Your task to perform on an android device: change the clock display to analog Image 0: 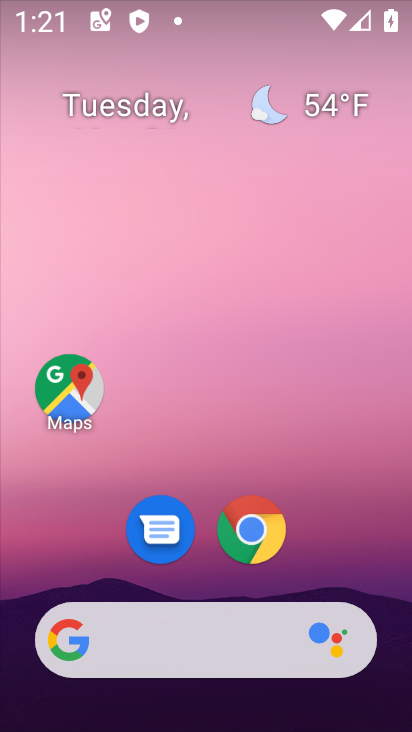
Step 0: drag from (329, 545) to (273, 153)
Your task to perform on an android device: change the clock display to analog Image 1: 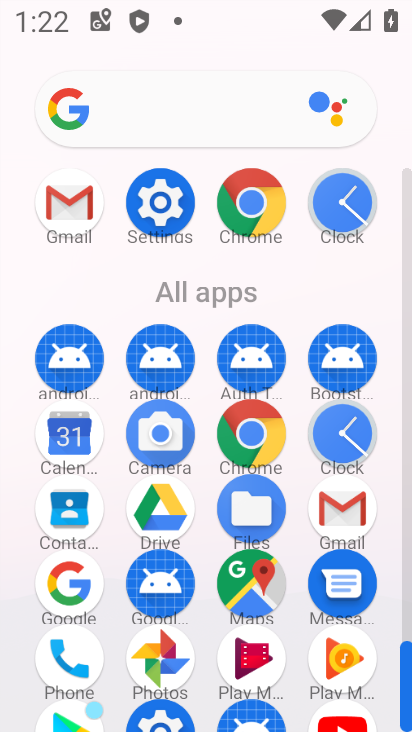
Step 1: click (341, 203)
Your task to perform on an android device: change the clock display to analog Image 2: 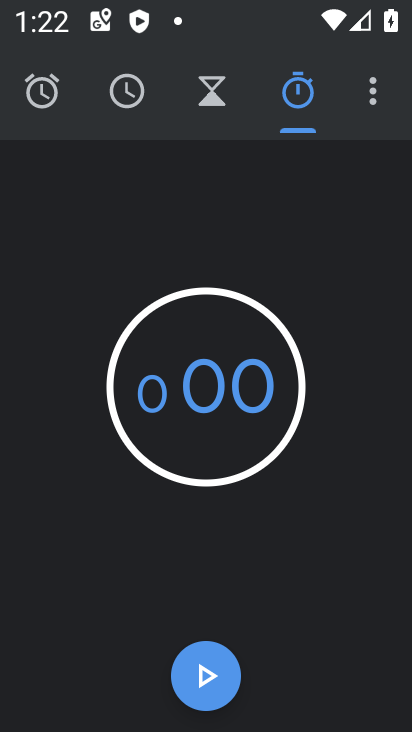
Step 2: click (374, 91)
Your task to perform on an android device: change the clock display to analog Image 3: 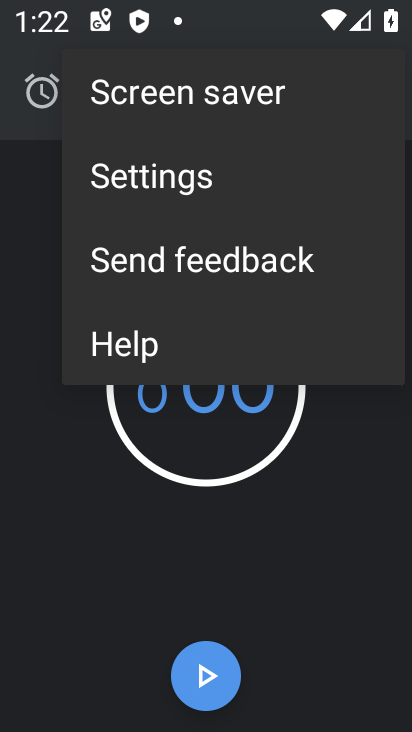
Step 3: click (162, 185)
Your task to perform on an android device: change the clock display to analog Image 4: 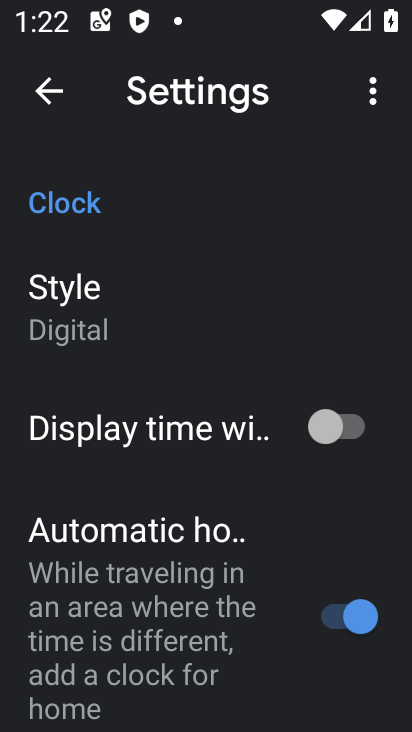
Step 4: click (83, 327)
Your task to perform on an android device: change the clock display to analog Image 5: 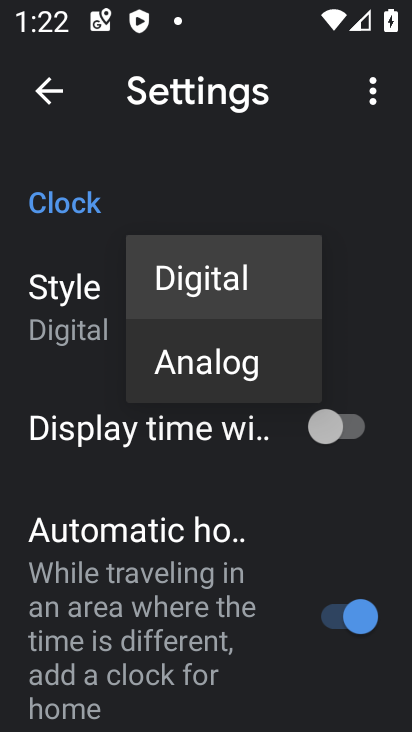
Step 5: click (186, 371)
Your task to perform on an android device: change the clock display to analog Image 6: 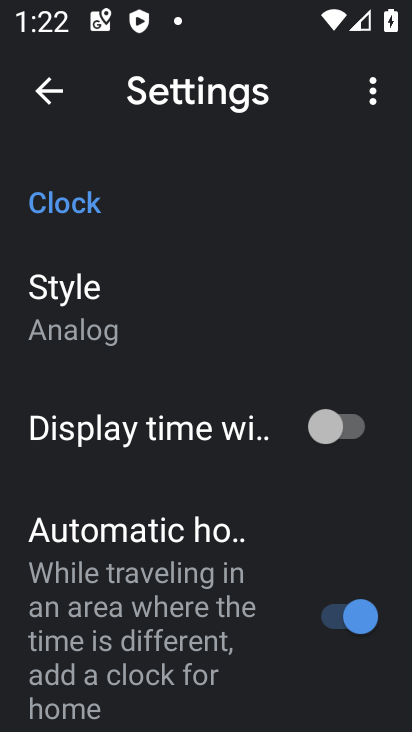
Step 6: task complete